Your task to perform on an android device: turn on improve location accuracy Image 0: 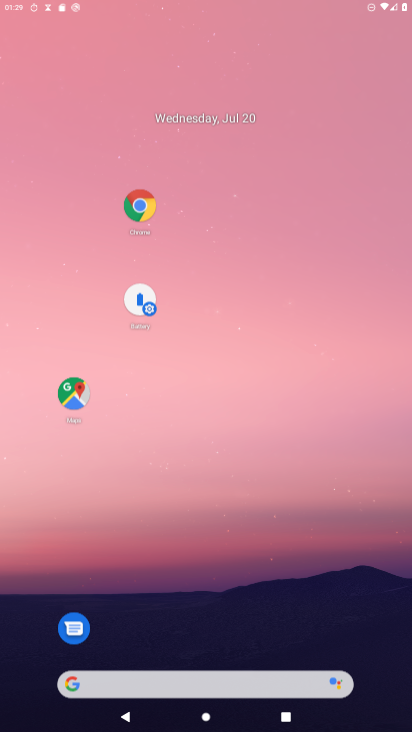
Step 0: click (217, 160)
Your task to perform on an android device: turn on improve location accuracy Image 1: 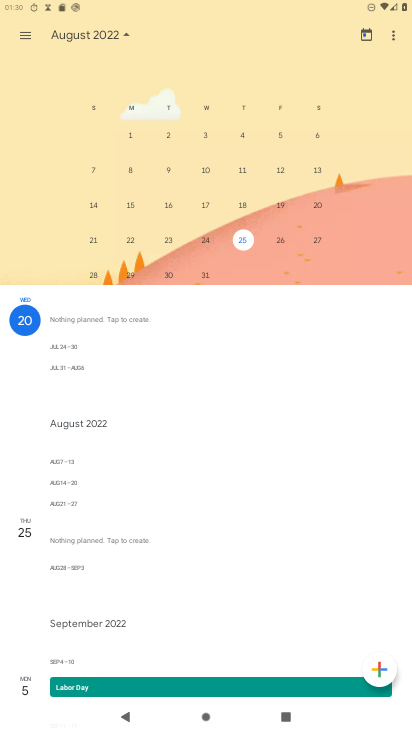
Step 1: press home button
Your task to perform on an android device: turn on improve location accuracy Image 2: 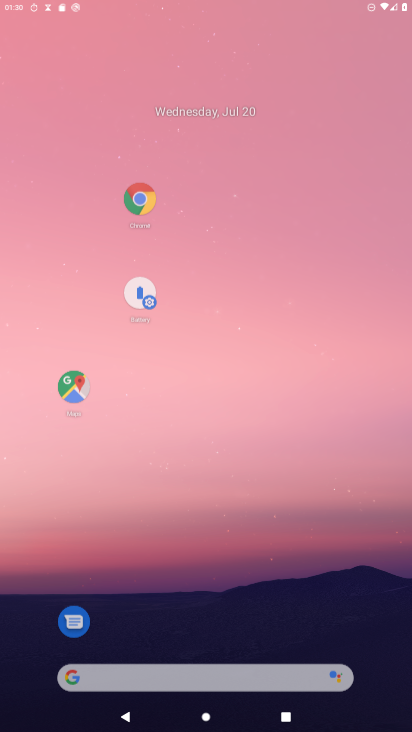
Step 2: drag from (223, 589) to (316, 27)
Your task to perform on an android device: turn on improve location accuracy Image 3: 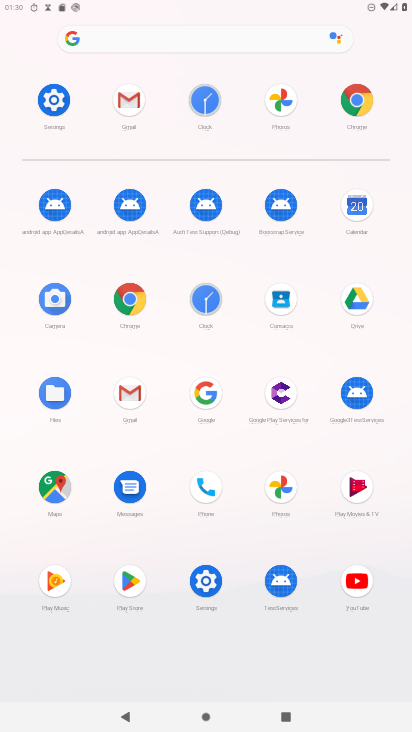
Step 3: click (214, 583)
Your task to perform on an android device: turn on improve location accuracy Image 4: 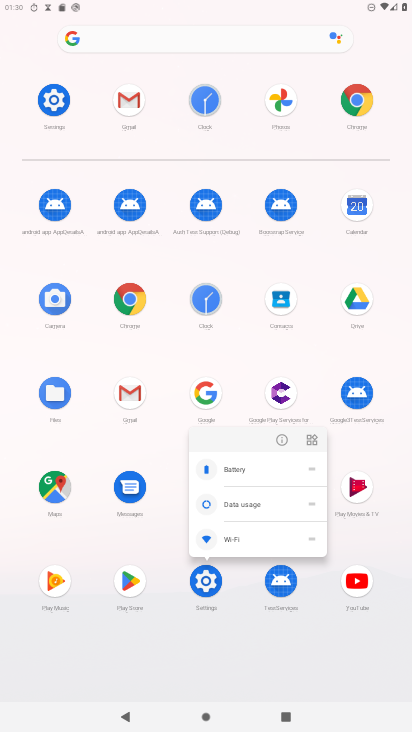
Step 4: click (282, 440)
Your task to perform on an android device: turn on improve location accuracy Image 5: 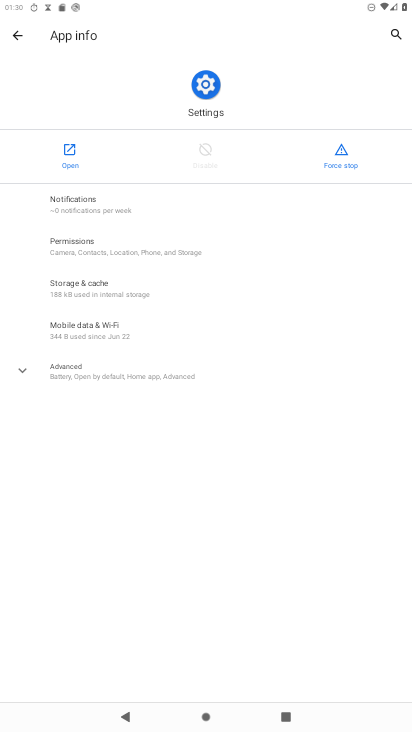
Step 5: click (57, 156)
Your task to perform on an android device: turn on improve location accuracy Image 6: 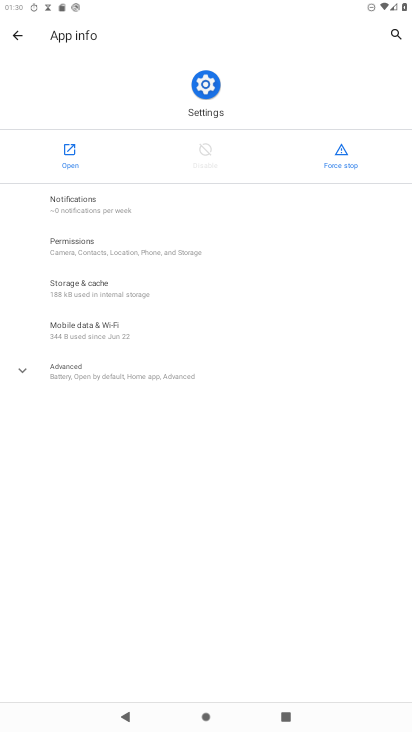
Step 6: click (57, 157)
Your task to perform on an android device: turn on improve location accuracy Image 7: 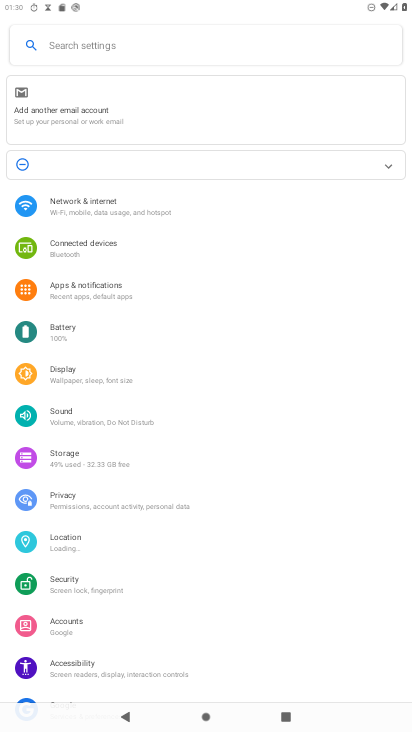
Step 7: drag from (224, 478) to (275, 95)
Your task to perform on an android device: turn on improve location accuracy Image 8: 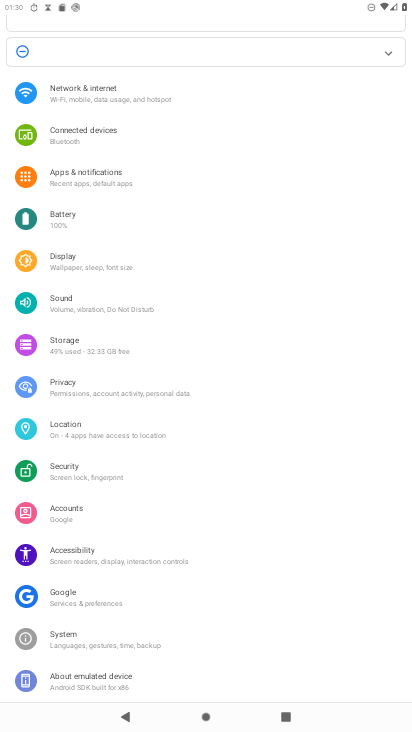
Step 8: click (101, 429)
Your task to perform on an android device: turn on improve location accuracy Image 9: 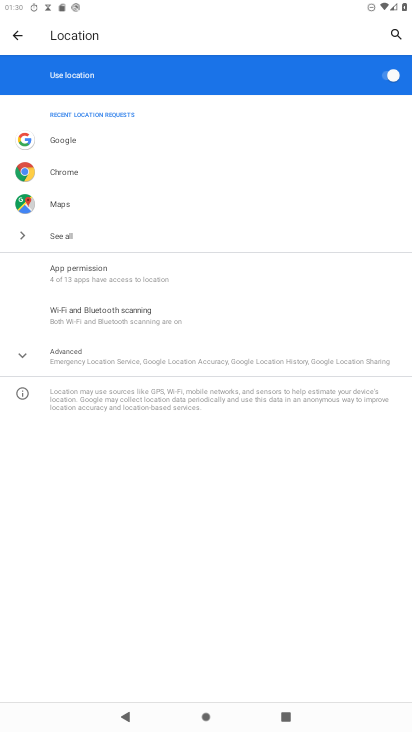
Step 9: click (74, 369)
Your task to perform on an android device: turn on improve location accuracy Image 10: 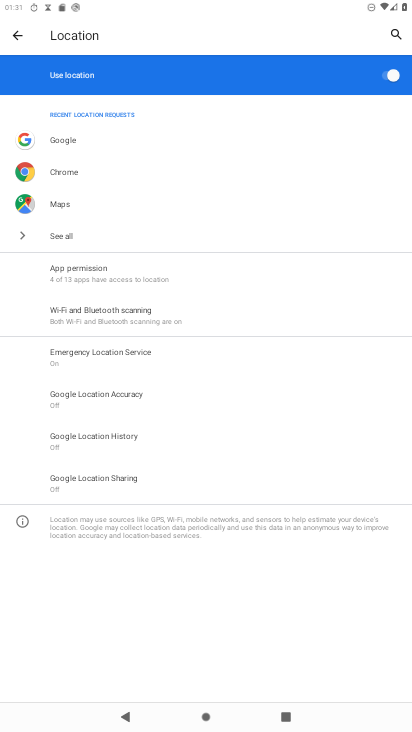
Step 10: click (133, 391)
Your task to perform on an android device: turn on improve location accuracy Image 11: 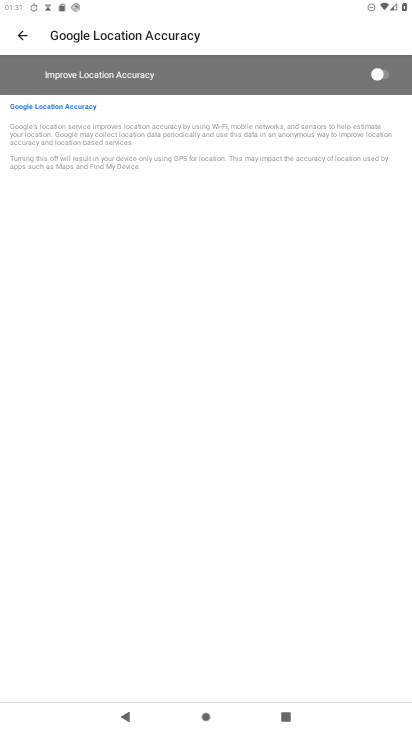
Step 11: click (387, 76)
Your task to perform on an android device: turn on improve location accuracy Image 12: 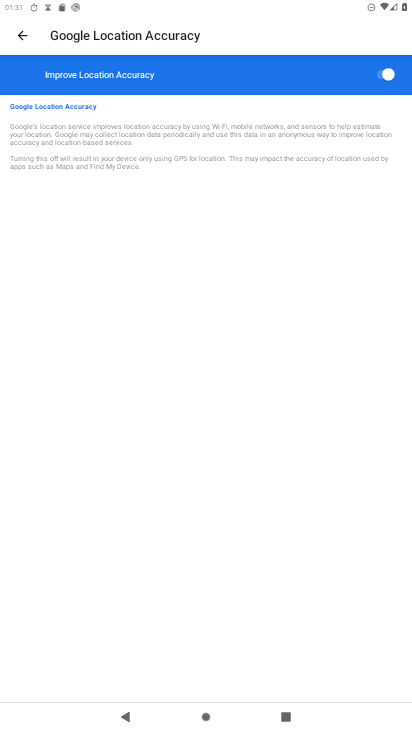
Step 12: task complete